Your task to perform on an android device: check android version Image 0: 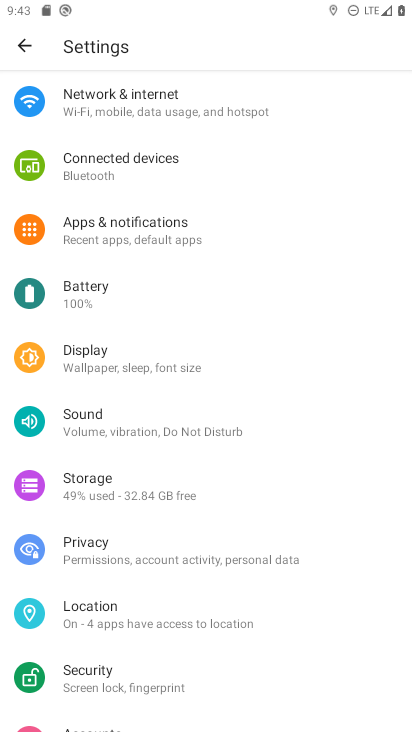
Step 0: press home button
Your task to perform on an android device: check android version Image 1: 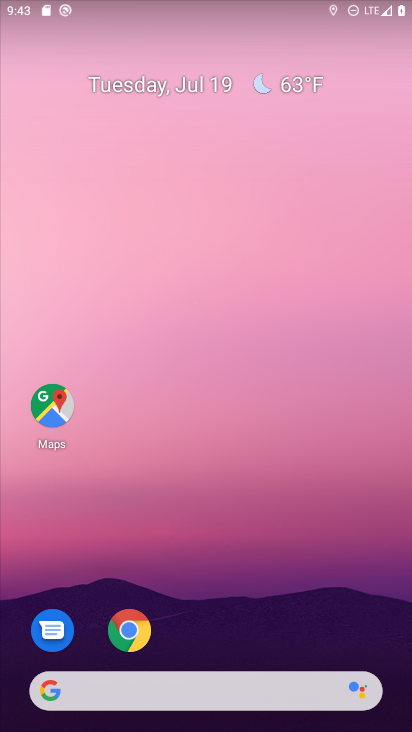
Step 1: drag from (200, 683) to (109, 114)
Your task to perform on an android device: check android version Image 2: 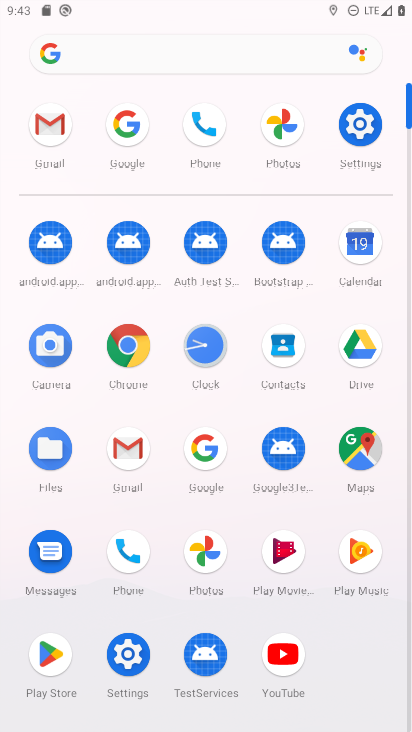
Step 2: click (361, 124)
Your task to perform on an android device: check android version Image 3: 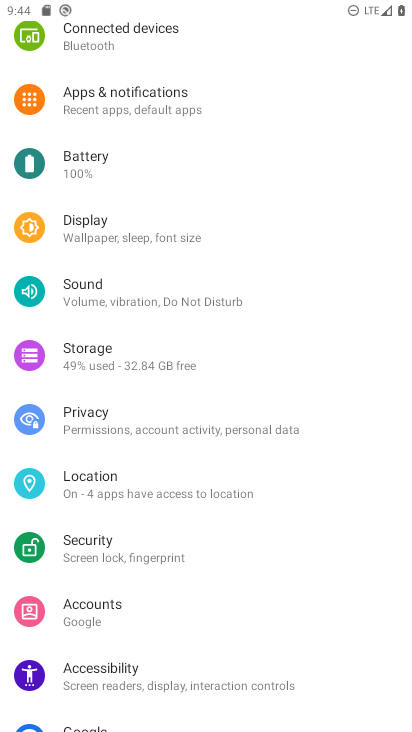
Step 3: drag from (146, 615) to (154, 330)
Your task to perform on an android device: check android version Image 4: 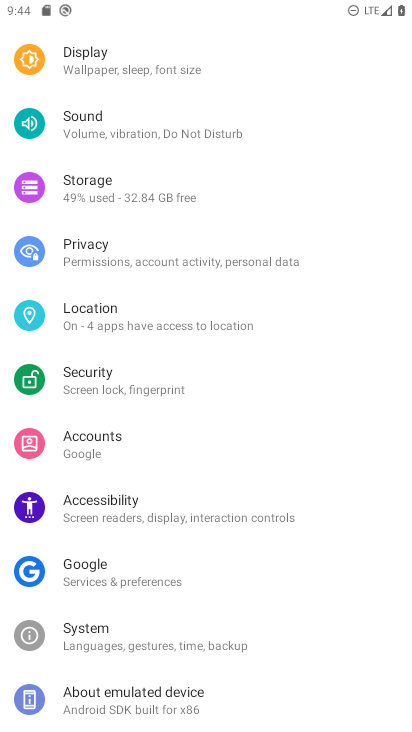
Step 4: click (159, 704)
Your task to perform on an android device: check android version Image 5: 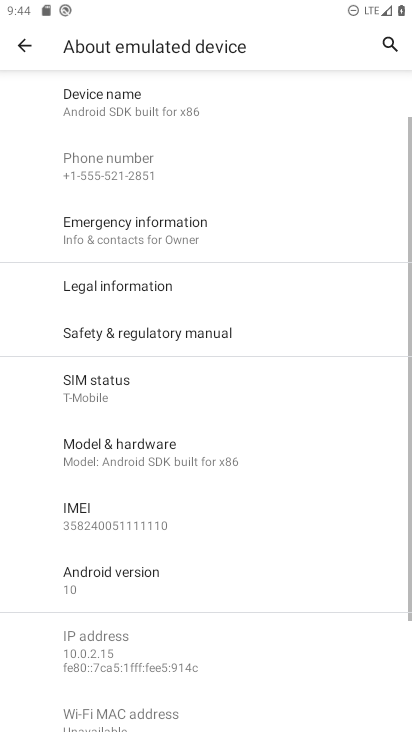
Step 5: click (111, 575)
Your task to perform on an android device: check android version Image 6: 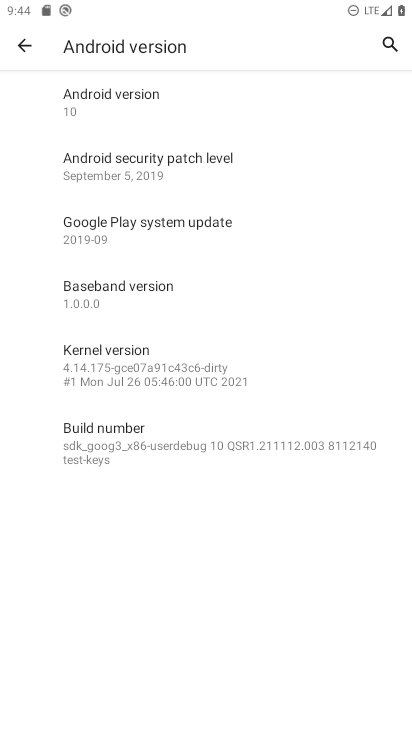
Step 6: task complete